Your task to perform on an android device: Open my contact list Image 0: 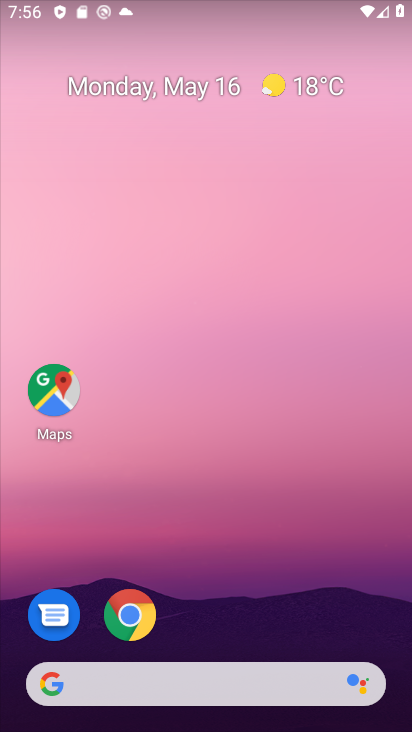
Step 0: drag from (210, 643) to (105, 98)
Your task to perform on an android device: Open my contact list Image 1: 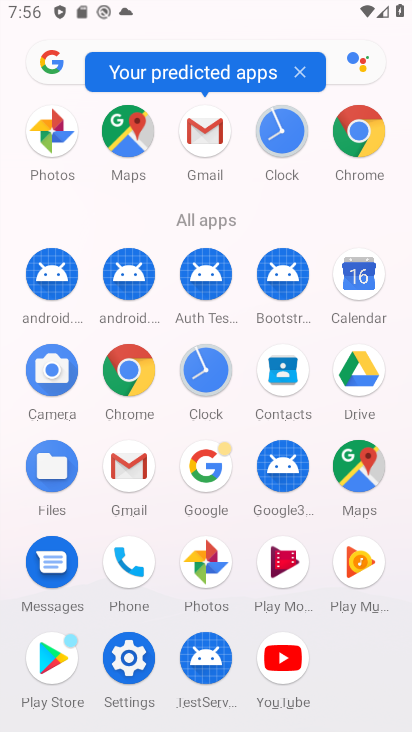
Step 1: click (131, 580)
Your task to perform on an android device: Open my contact list Image 2: 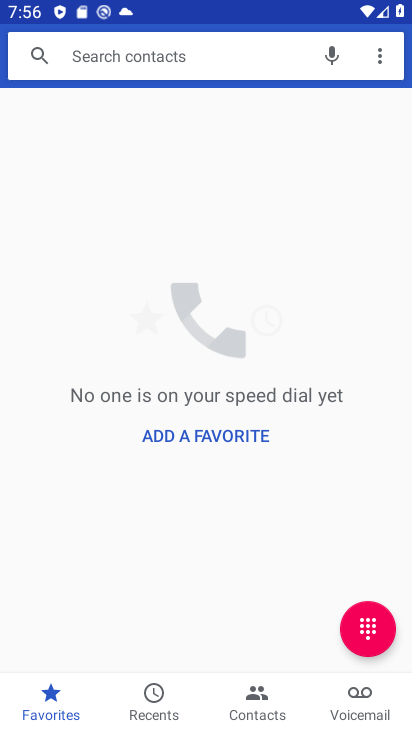
Step 2: click (266, 714)
Your task to perform on an android device: Open my contact list Image 3: 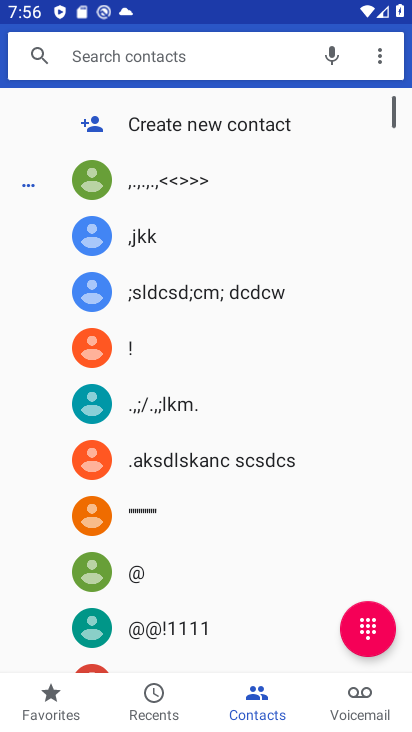
Step 3: task complete